Your task to perform on an android device: check data usage Image 0: 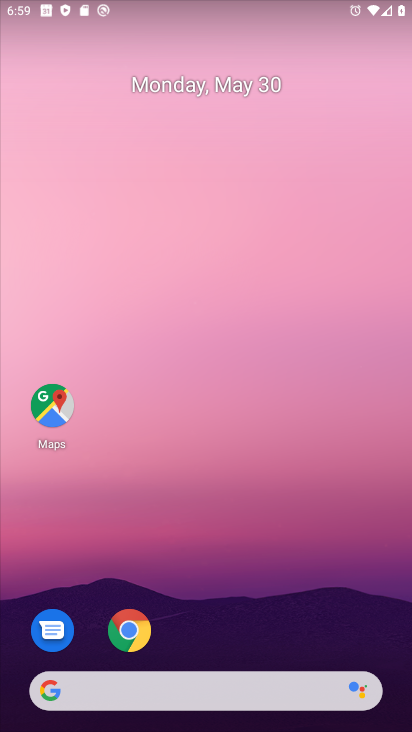
Step 0: drag from (270, 623) to (273, 14)
Your task to perform on an android device: check data usage Image 1: 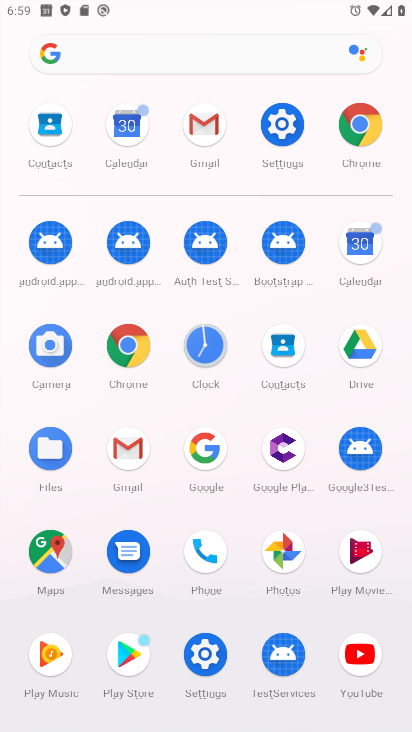
Step 1: click (276, 132)
Your task to perform on an android device: check data usage Image 2: 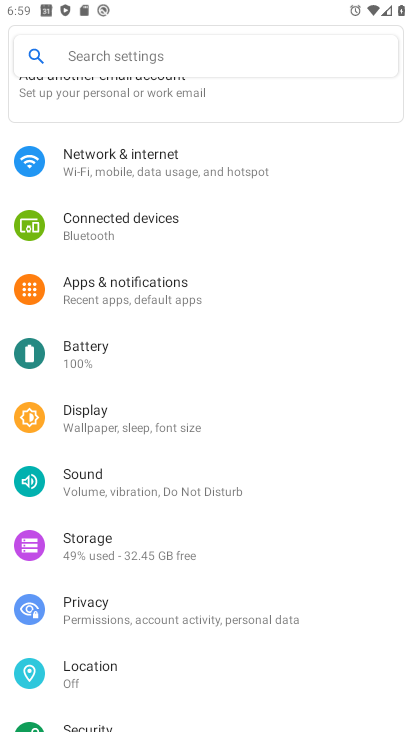
Step 2: click (167, 171)
Your task to perform on an android device: check data usage Image 3: 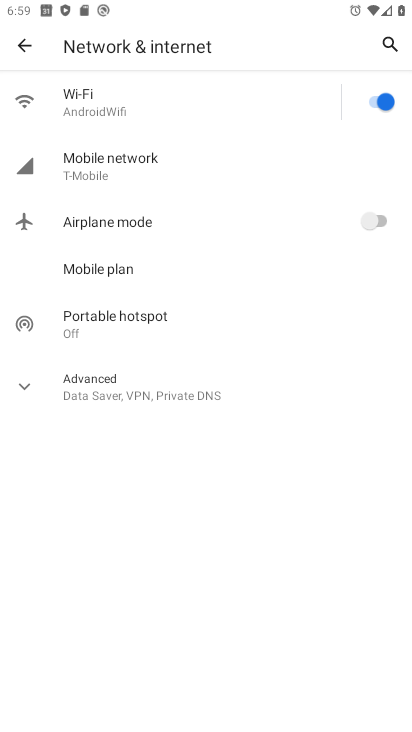
Step 3: click (168, 170)
Your task to perform on an android device: check data usage Image 4: 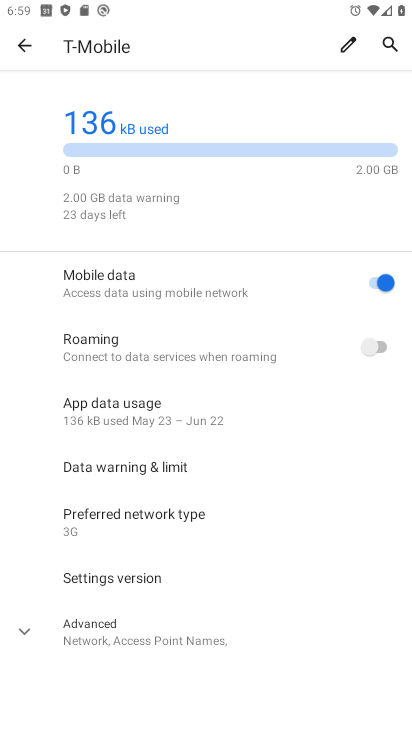
Step 4: click (148, 410)
Your task to perform on an android device: check data usage Image 5: 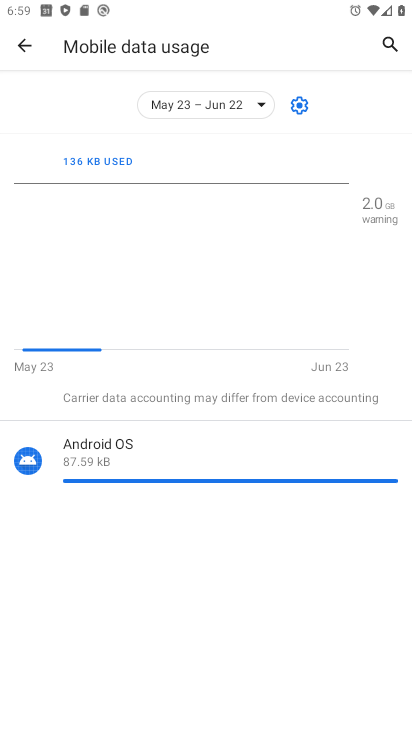
Step 5: task complete